Your task to perform on an android device: Open notification settings Image 0: 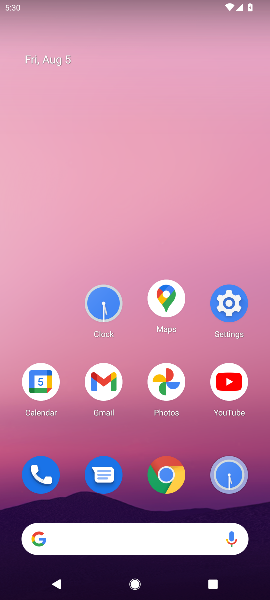
Step 0: click (223, 294)
Your task to perform on an android device: Open notification settings Image 1: 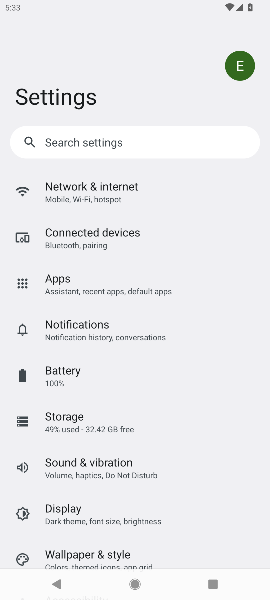
Step 1: click (99, 321)
Your task to perform on an android device: Open notification settings Image 2: 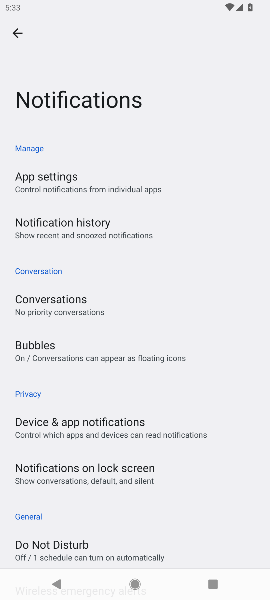
Step 2: task complete